Your task to perform on an android device: Open accessibility settings Image 0: 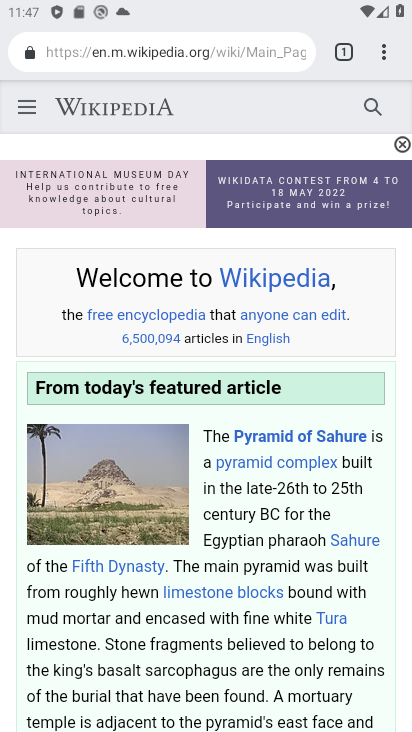
Step 0: press home button
Your task to perform on an android device: Open accessibility settings Image 1: 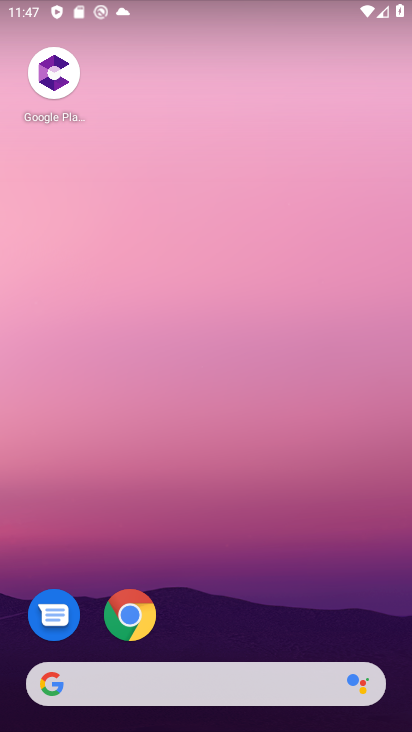
Step 1: drag from (349, 646) to (322, 40)
Your task to perform on an android device: Open accessibility settings Image 2: 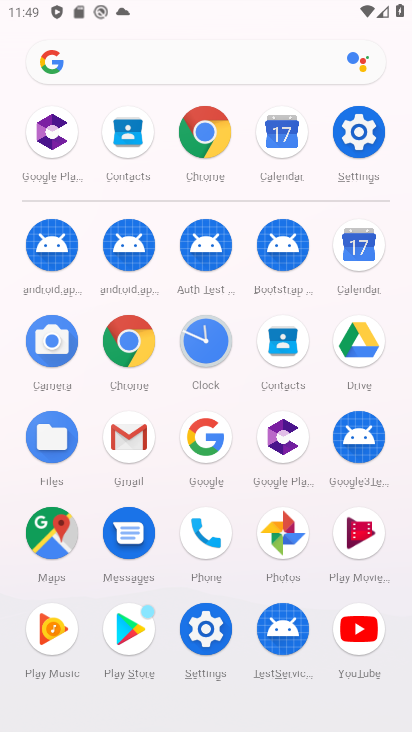
Step 2: click (201, 627)
Your task to perform on an android device: Open accessibility settings Image 3: 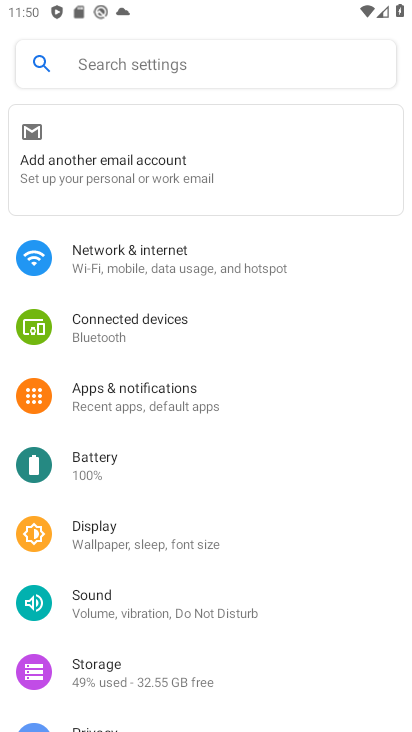
Step 3: drag from (168, 709) to (262, 190)
Your task to perform on an android device: Open accessibility settings Image 4: 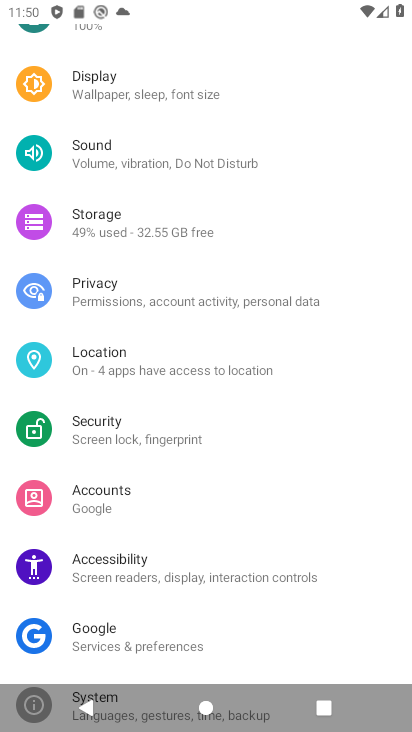
Step 4: click (174, 563)
Your task to perform on an android device: Open accessibility settings Image 5: 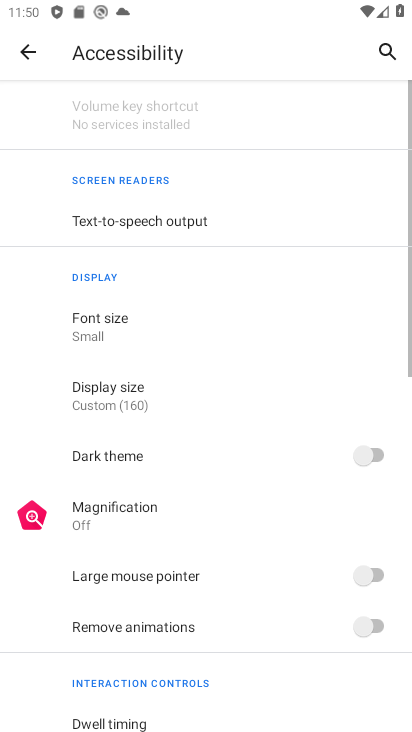
Step 5: task complete